Your task to perform on an android device: Clear the cart on walmart. Add "razer naga" to the cart on walmart, then select checkout. Image 0: 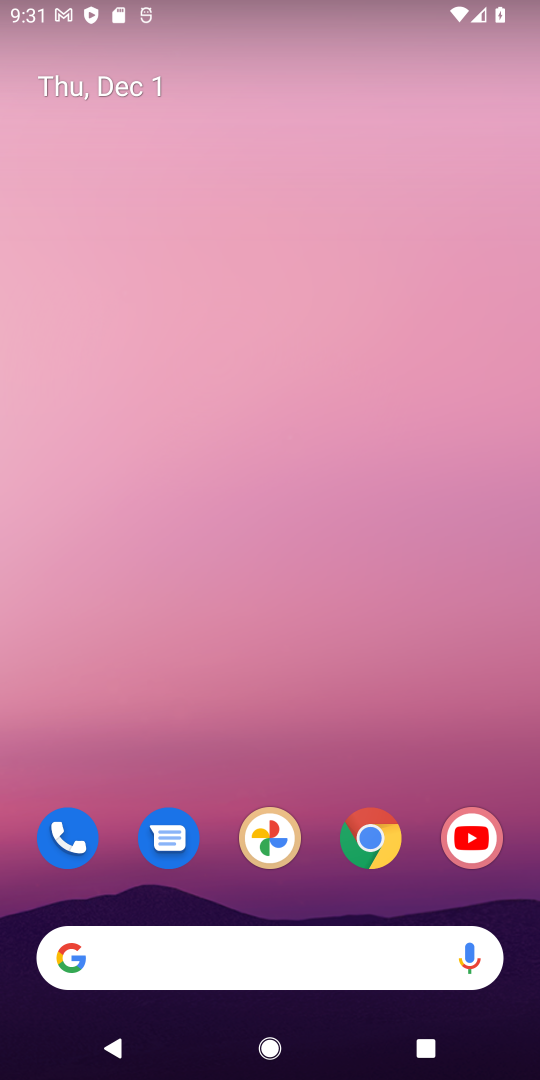
Step 0: drag from (301, 896) to (297, 363)
Your task to perform on an android device: Clear the cart on walmart. Add "razer naga" to the cart on walmart, then select checkout. Image 1: 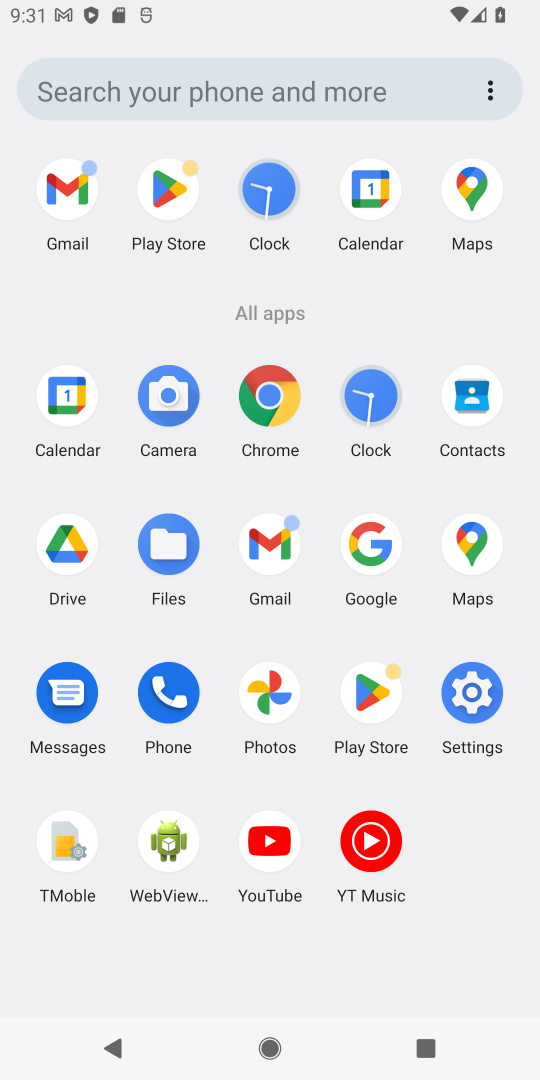
Step 1: click (368, 544)
Your task to perform on an android device: Clear the cart on walmart. Add "razer naga" to the cart on walmart, then select checkout. Image 2: 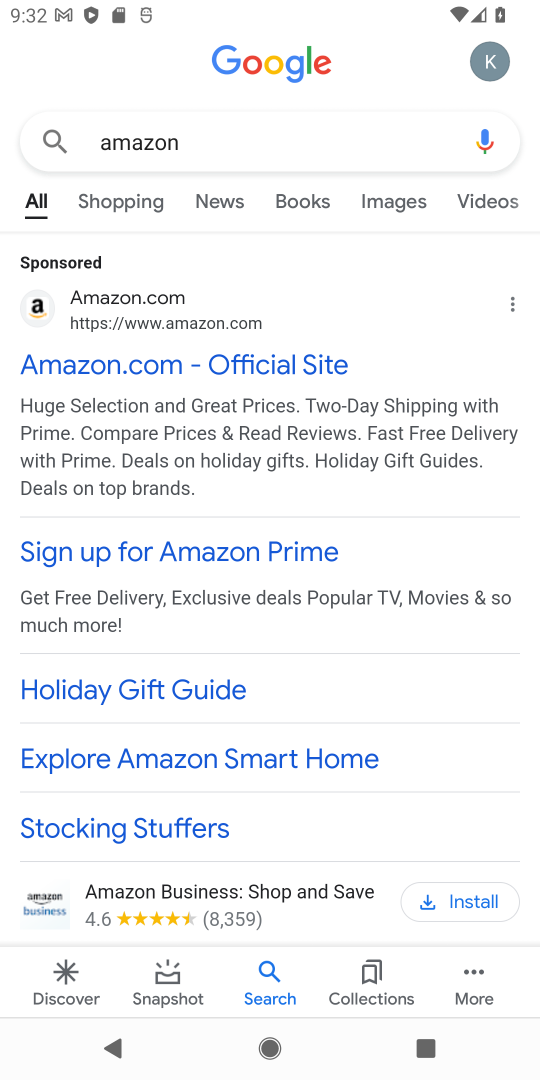
Step 2: click (126, 148)
Your task to perform on an android device: Clear the cart on walmart. Add "razer naga" to the cart on walmart, then select checkout. Image 3: 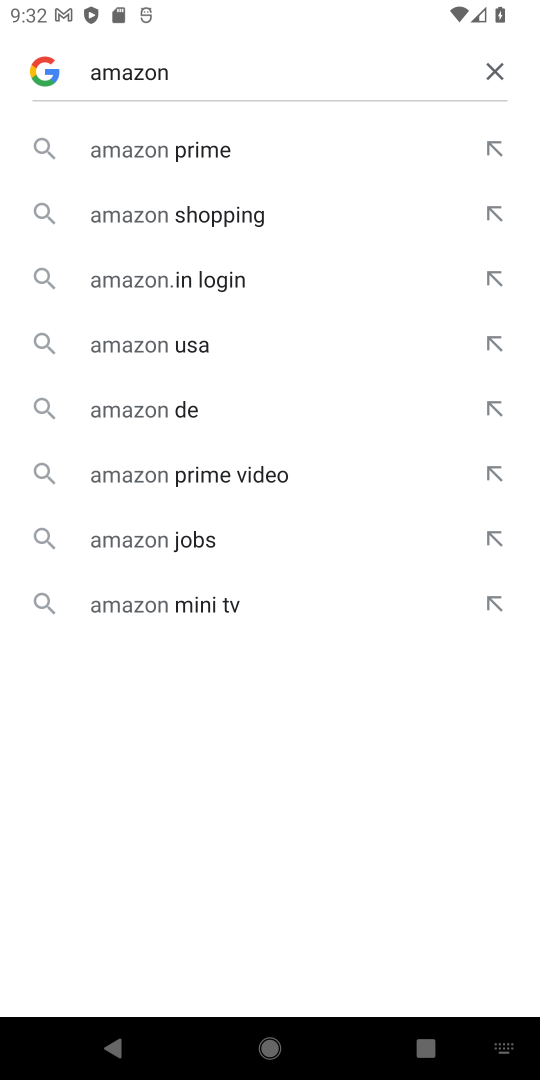
Step 3: click (494, 69)
Your task to perform on an android device: Clear the cart on walmart. Add "razer naga" to the cart on walmart, then select checkout. Image 4: 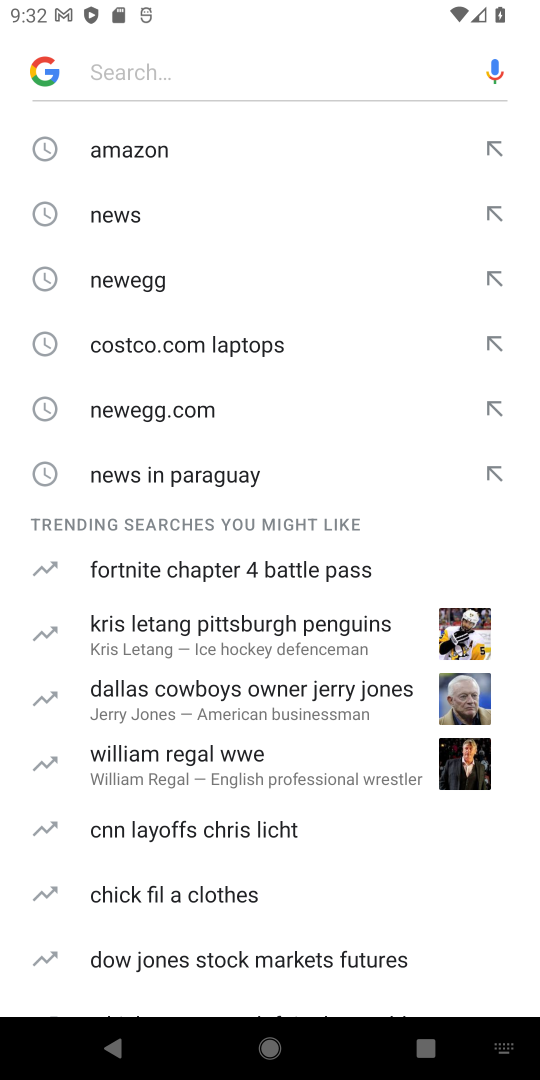
Step 4: type "walmart"
Your task to perform on an android device: Clear the cart on walmart. Add "razer naga" to the cart on walmart, then select checkout. Image 5: 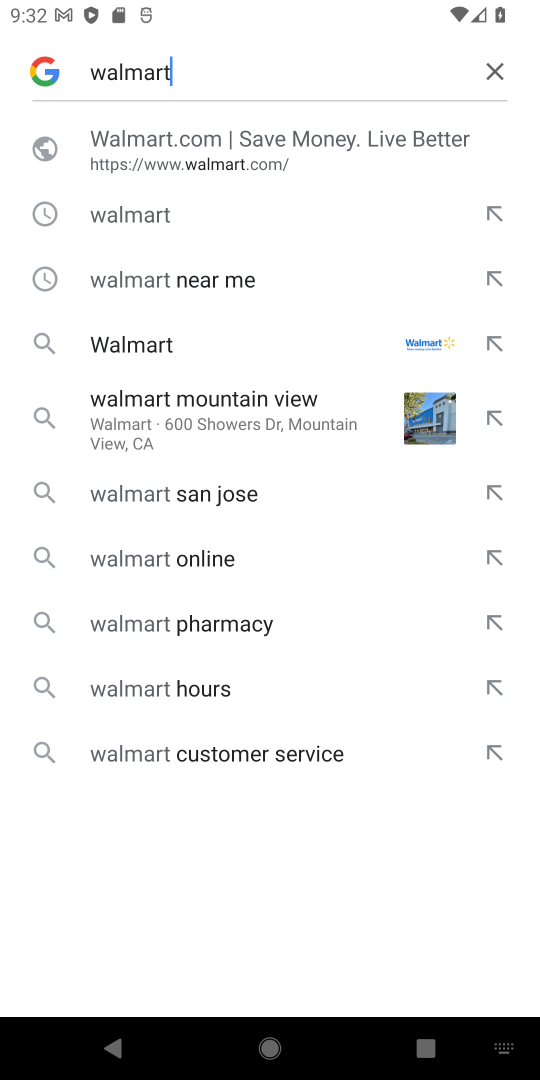
Step 5: click (154, 155)
Your task to perform on an android device: Clear the cart on walmart. Add "razer naga" to the cart on walmart, then select checkout. Image 6: 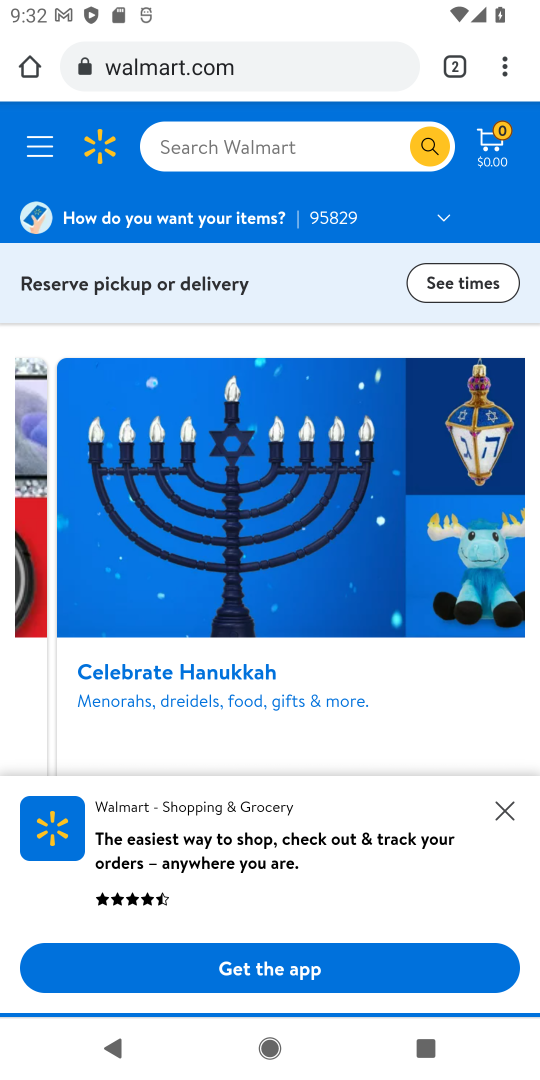
Step 6: click (264, 143)
Your task to perform on an android device: Clear the cart on walmart. Add "razer naga" to the cart on walmart, then select checkout. Image 7: 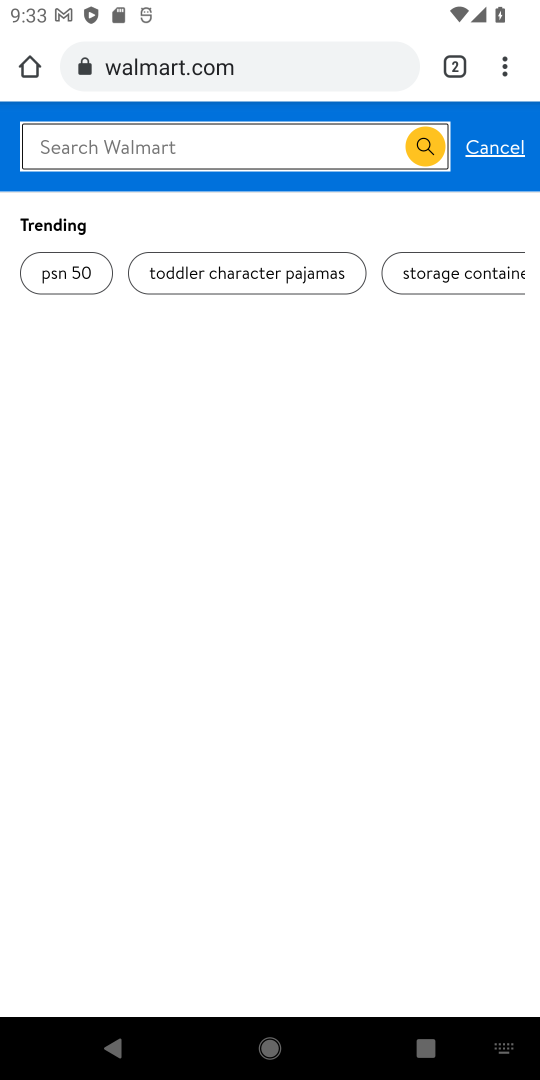
Step 7: type "razer naga"
Your task to perform on an android device: Clear the cart on walmart. Add "razer naga" to the cart on walmart, then select checkout. Image 8: 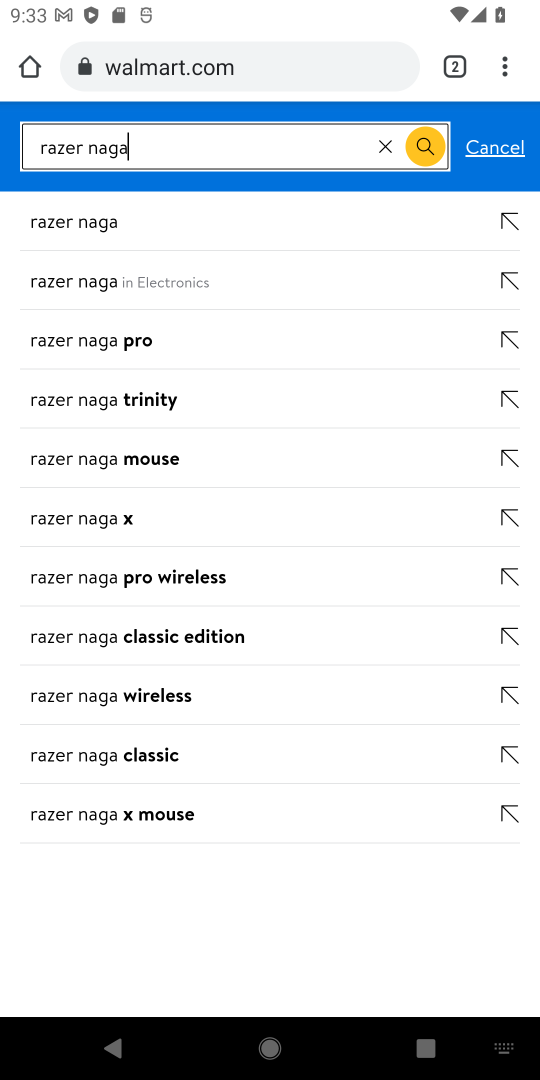
Step 8: click (114, 231)
Your task to perform on an android device: Clear the cart on walmart. Add "razer naga" to the cart on walmart, then select checkout. Image 9: 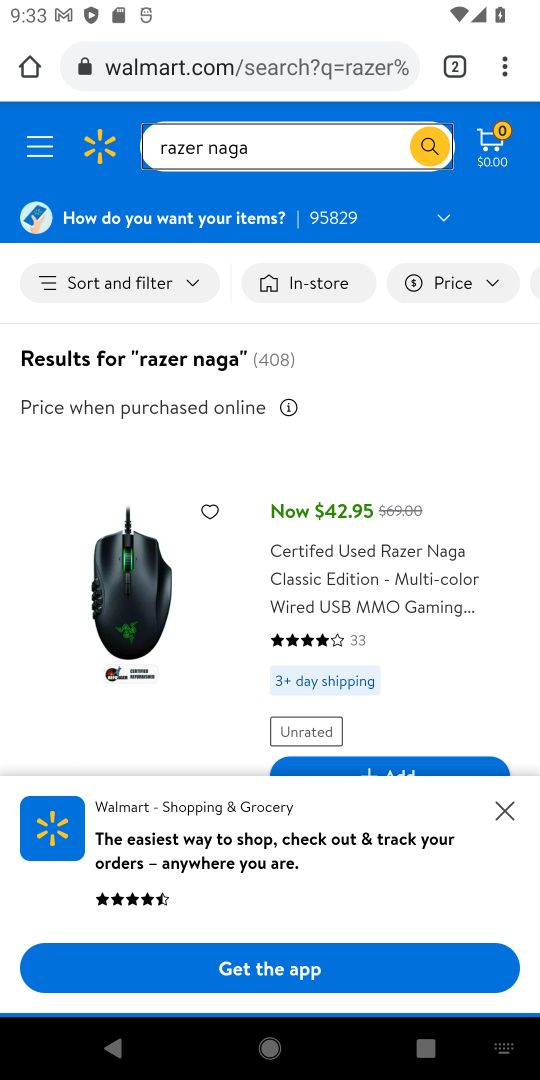
Step 9: click (340, 766)
Your task to perform on an android device: Clear the cart on walmart. Add "razer naga" to the cart on walmart, then select checkout. Image 10: 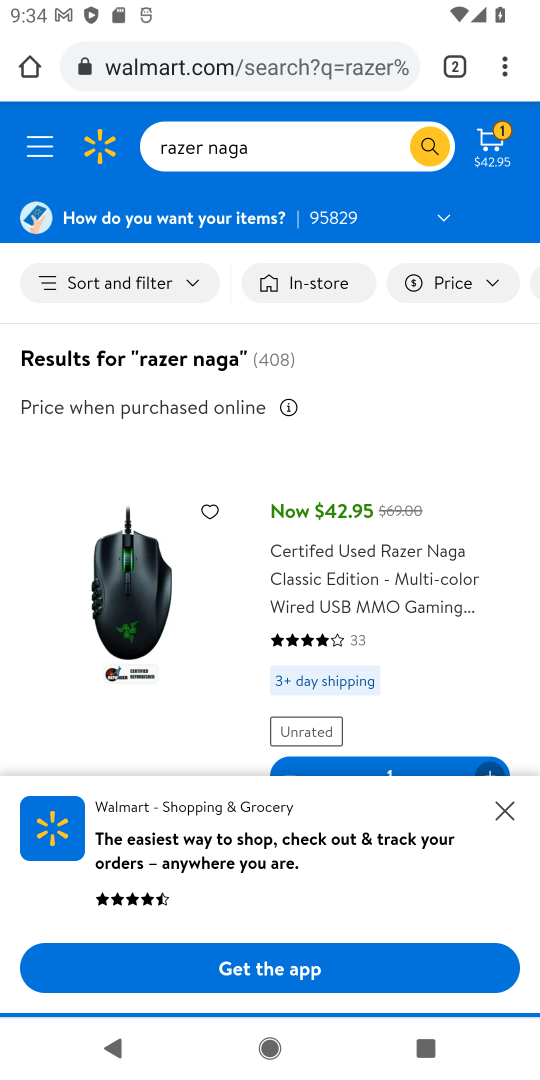
Step 10: click (500, 807)
Your task to perform on an android device: Clear the cart on walmart. Add "razer naga" to the cart on walmart, then select checkout. Image 11: 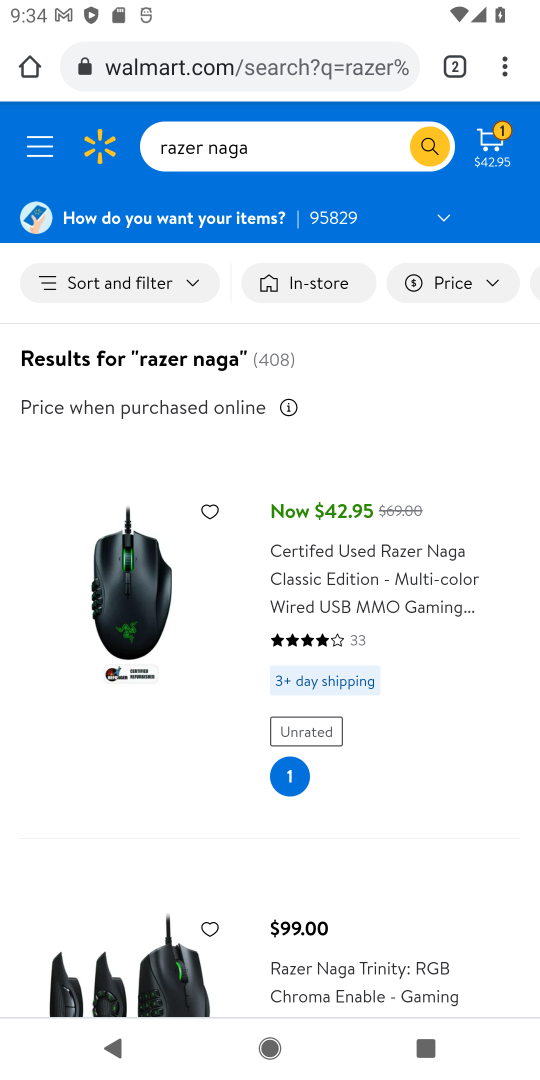
Step 11: click (502, 143)
Your task to perform on an android device: Clear the cart on walmart. Add "razer naga" to the cart on walmart, then select checkout. Image 12: 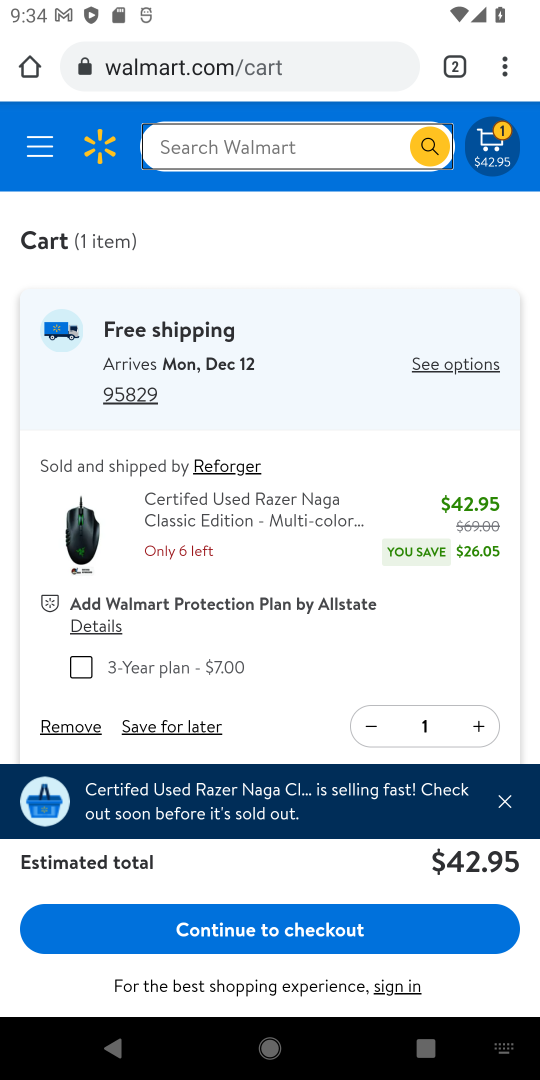
Step 12: drag from (374, 742) to (374, 451)
Your task to perform on an android device: Clear the cart on walmart. Add "razer naga" to the cart on walmart, then select checkout. Image 13: 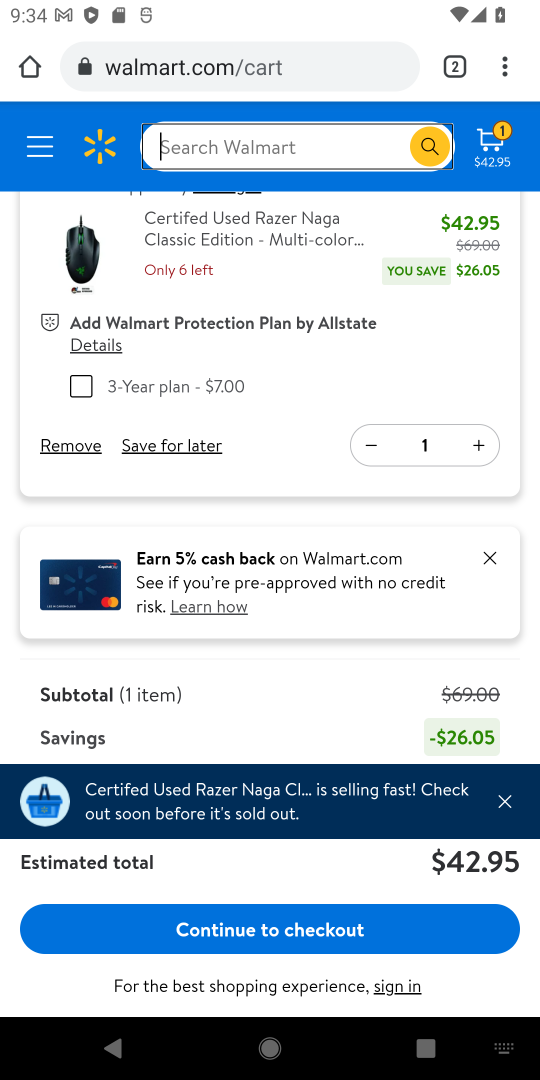
Step 13: click (343, 930)
Your task to perform on an android device: Clear the cart on walmart. Add "razer naga" to the cart on walmart, then select checkout. Image 14: 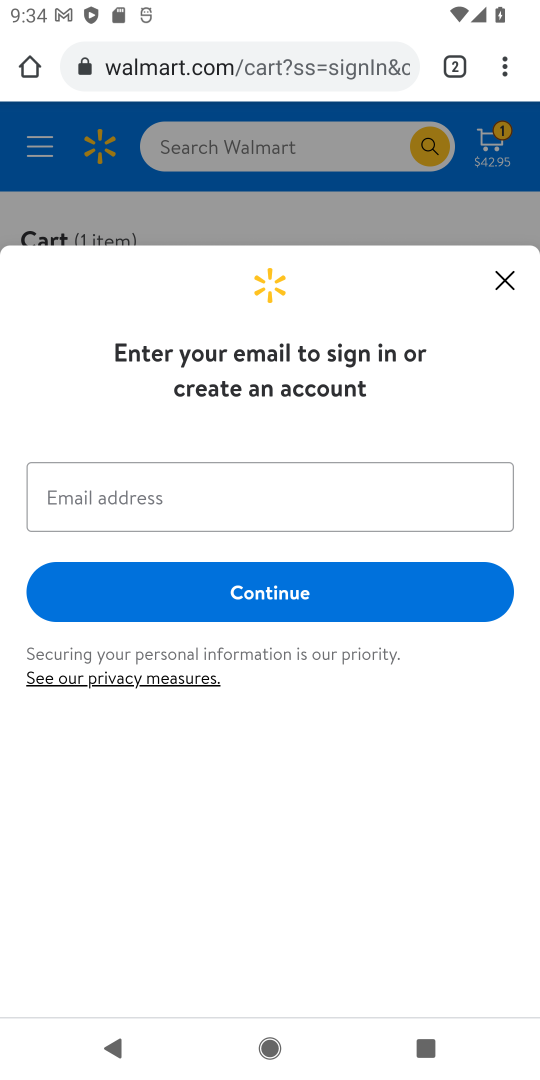
Step 14: click (509, 276)
Your task to perform on an android device: Clear the cart on walmart. Add "razer naga" to the cart on walmart, then select checkout. Image 15: 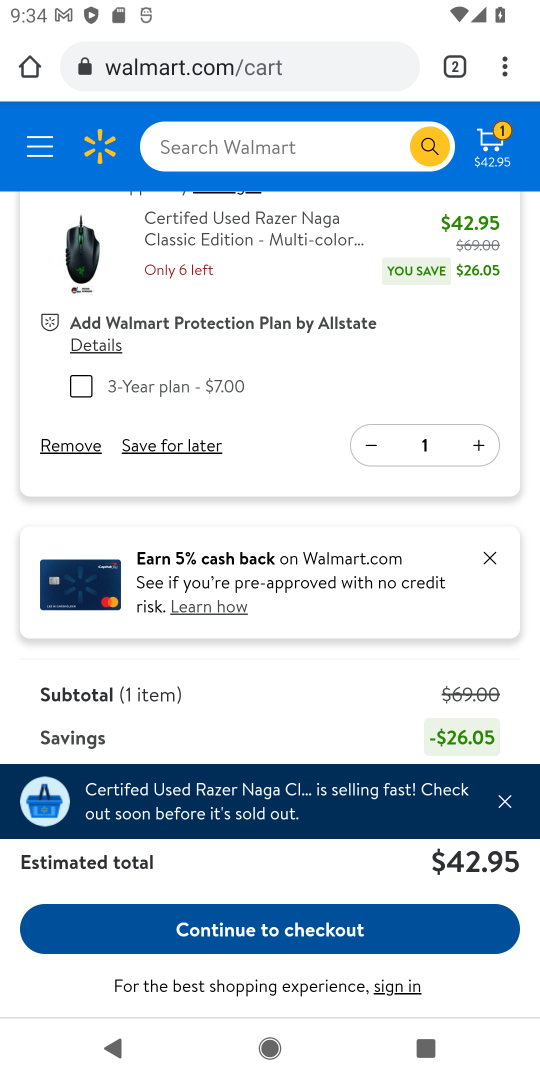
Step 15: task complete